Your task to perform on an android device: Go to sound settings Image 0: 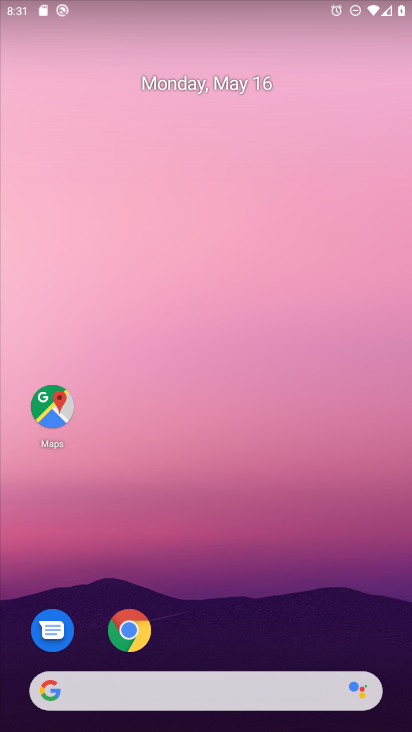
Step 0: drag from (285, 520) to (264, 68)
Your task to perform on an android device: Go to sound settings Image 1: 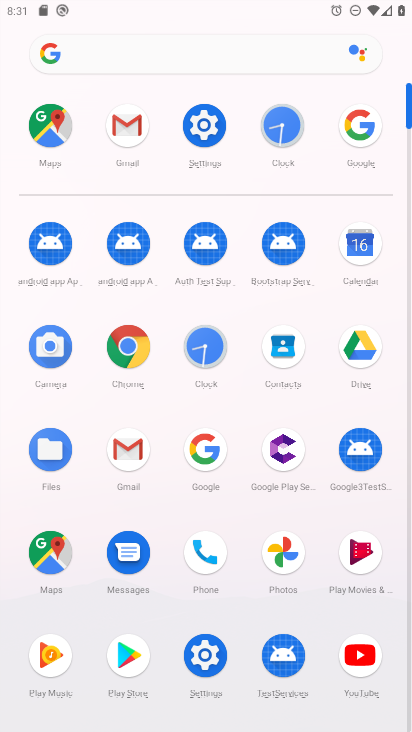
Step 1: click (208, 126)
Your task to perform on an android device: Go to sound settings Image 2: 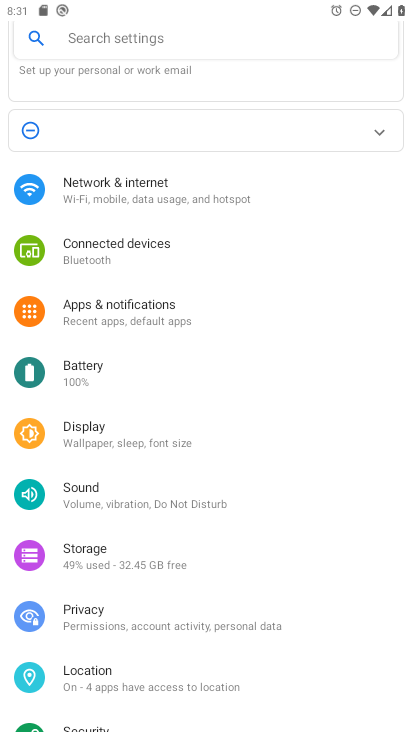
Step 2: click (186, 497)
Your task to perform on an android device: Go to sound settings Image 3: 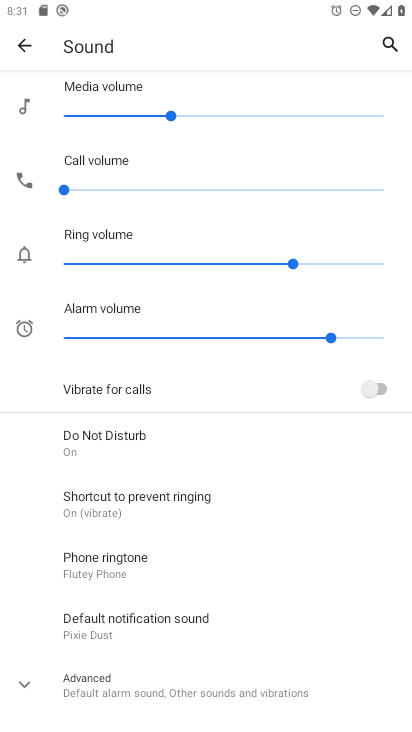
Step 3: task complete